Your task to perform on an android device: Open Reddit.com Image 0: 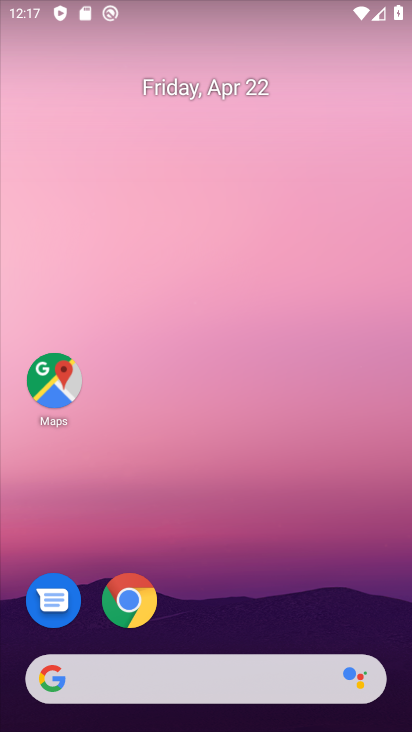
Step 0: click (223, 680)
Your task to perform on an android device: Open Reddit.com Image 1: 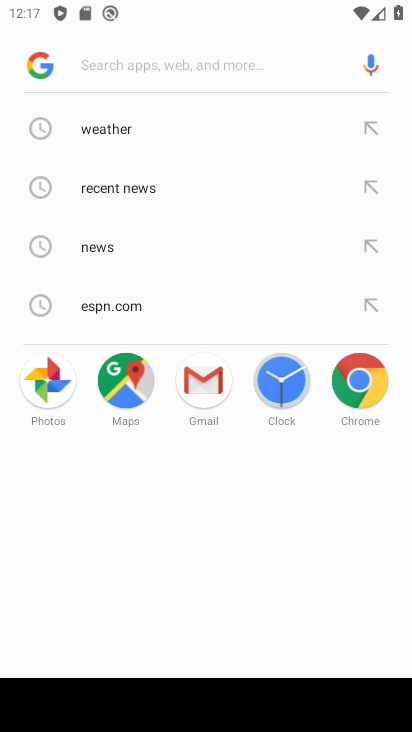
Step 1: type "Reddit.com"
Your task to perform on an android device: Open Reddit.com Image 2: 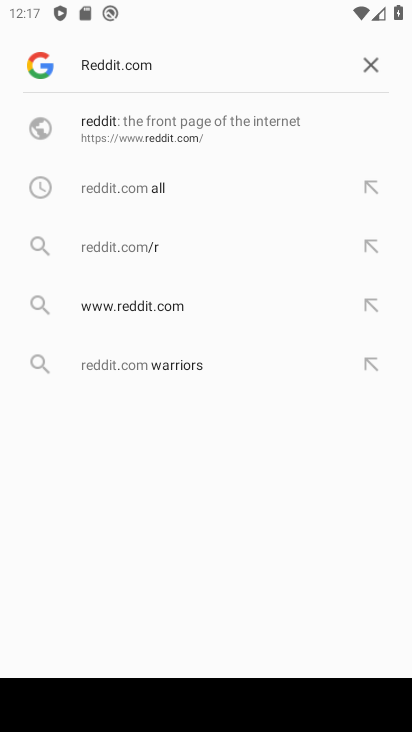
Step 2: click (144, 308)
Your task to perform on an android device: Open Reddit.com Image 3: 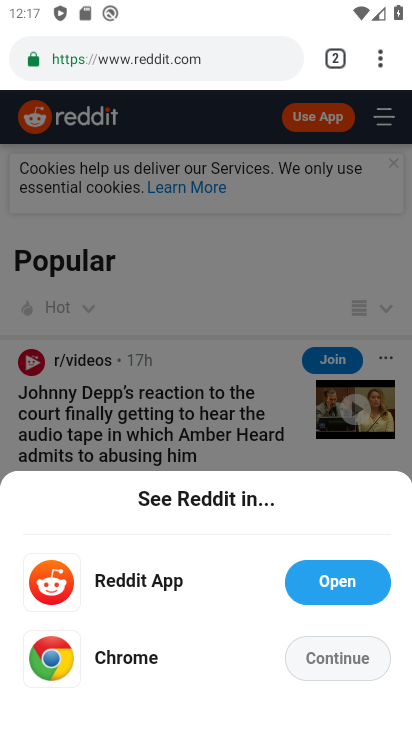
Step 3: task complete